Your task to perform on an android device: Go to location settings Image 0: 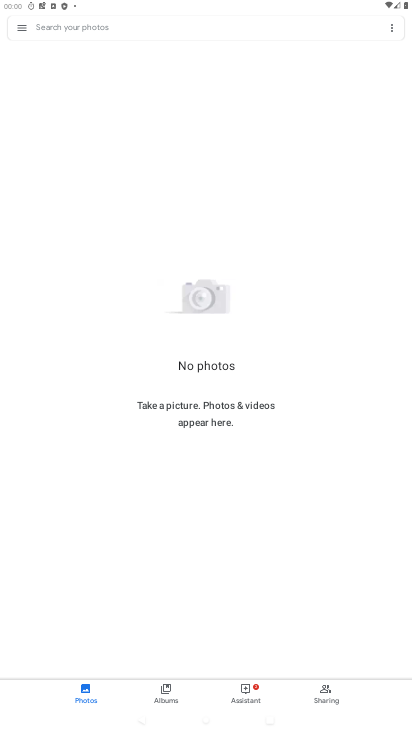
Step 0: press home button
Your task to perform on an android device: Go to location settings Image 1: 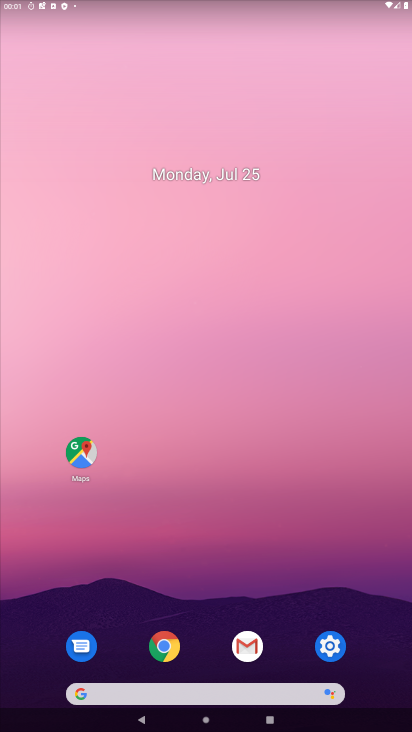
Step 1: click (332, 654)
Your task to perform on an android device: Go to location settings Image 2: 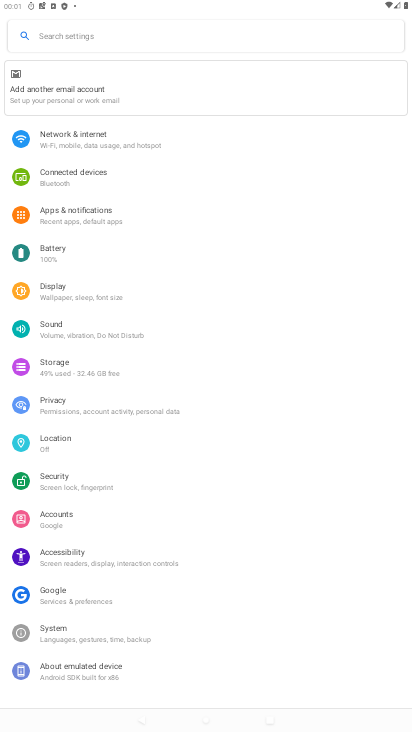
Step 2: click (69, 444)
Your task to perform on an android device: Go to location settings Image 3: 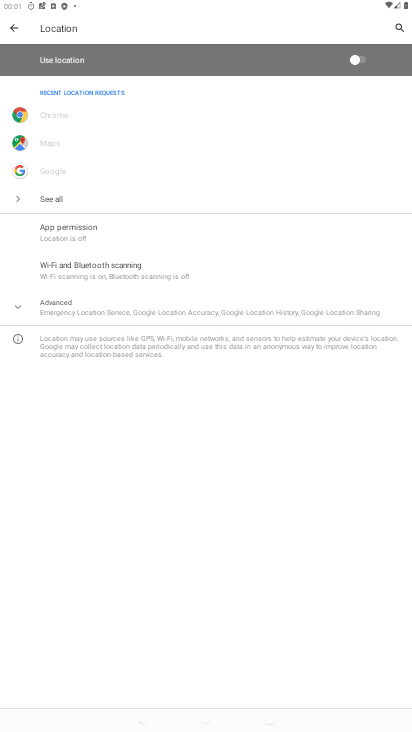
Step 3: task complete